Your task to perform on an android device: Search for the new lego star wars 2021 on Target Image 0: 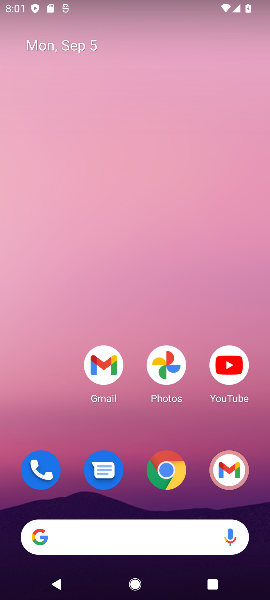
Step 0: click (127, 533)
Your task to perform on an android device: Search for the new lego star wars 2021 on Target Image 1: 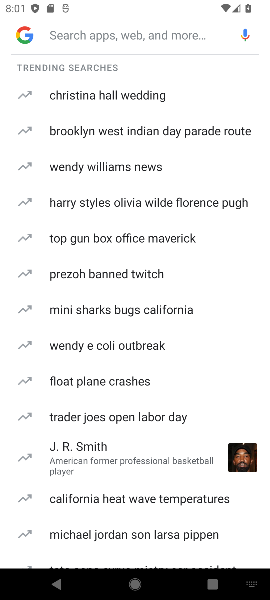
Step 1: type "target"
Your task to perform on an android device: Search for the new lego star wars 2021 on Target Image 2: 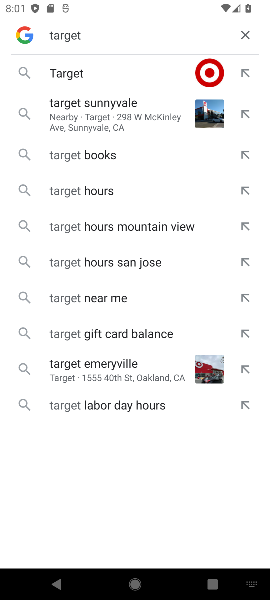
Step 2: click (76, 72)
Your task to perform on an android device: Search for the new lego star wars 2021 on Target Image 3: 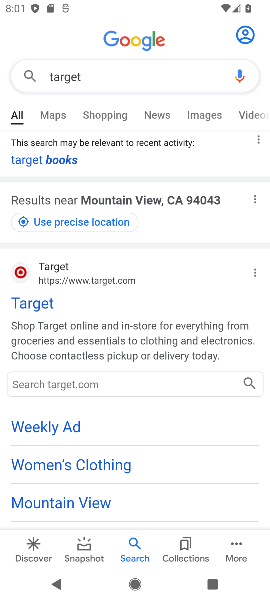
Step 3: click (28, 298)
Your task to perform on an android device: Search for the new lego star wars 2021 on Target Image 4: 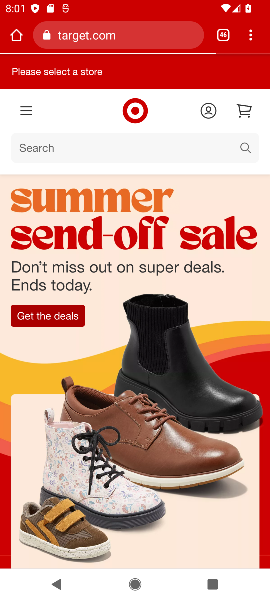
Step 4: click (123, 144)
Your task to perform on an android device: Search for the new lego star wars 2021 on Target Image 5: 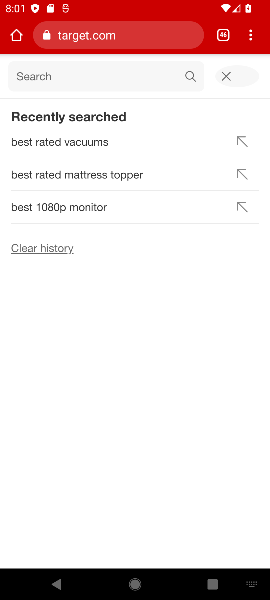
Step 5: type "new lego star wars 2021"
Your task to perform on an android device: Search for the new lego star wars 2021 on Target Image 6: 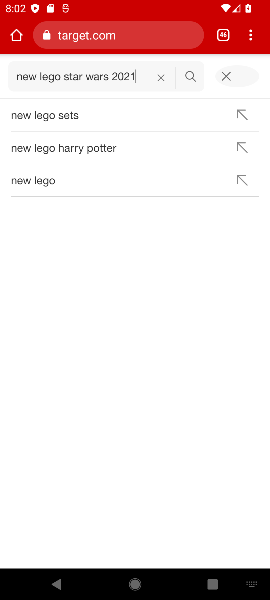
Step 6: click (187, 71)
Your task to perform on an android device: Search for the new lego star wars 2021 on Target Image 7: 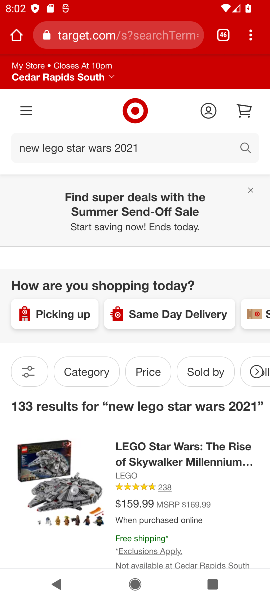
Step 7: task complete